Your task to perform on an android device: Open calendar and show me the second week of next month Image 0: 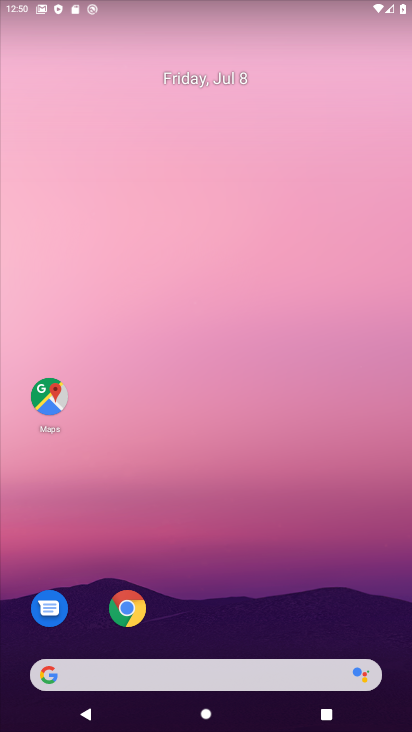
Step 0: drag from (358, 644) to (281, 72)
Your task to perform on an android device: Open calendar and show me the second week of next month Image 1: 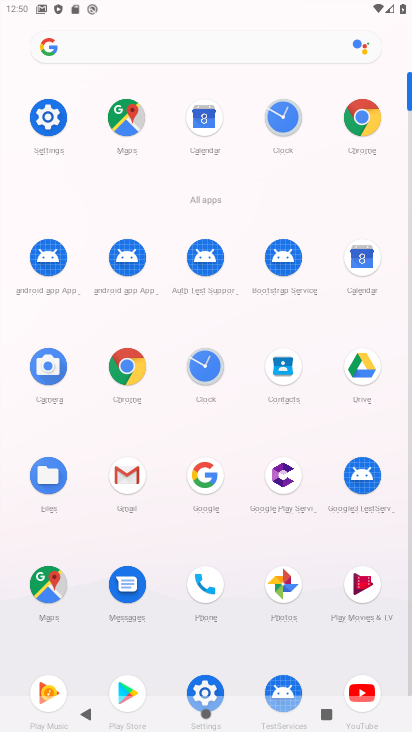
Step 1: click (361, 258)
Your task to perform on an android device: Open calendar and show me the second week of next month Image 2: 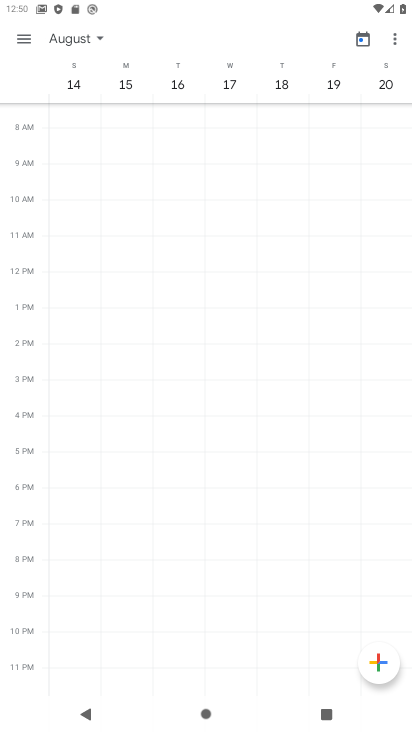
Step 2: task complete